Your task to perform on an android device: clear history in the chrome app Image 0: 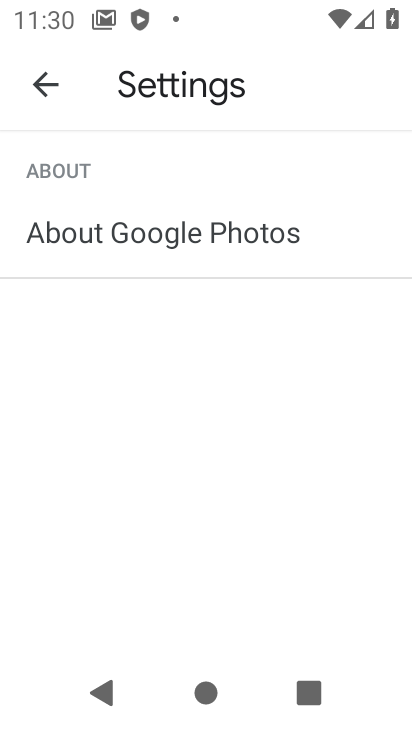
Step 0: press home button
Your task to perform on an android device: clear history in the chrome app Image 1: 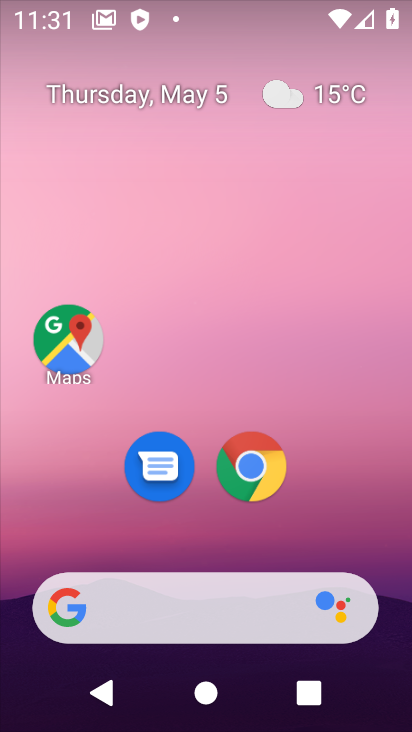
Step 1: drag from (206, 547) to (215, 134)
Your task to perform on an android device: clear history in the chrome app Image 2: 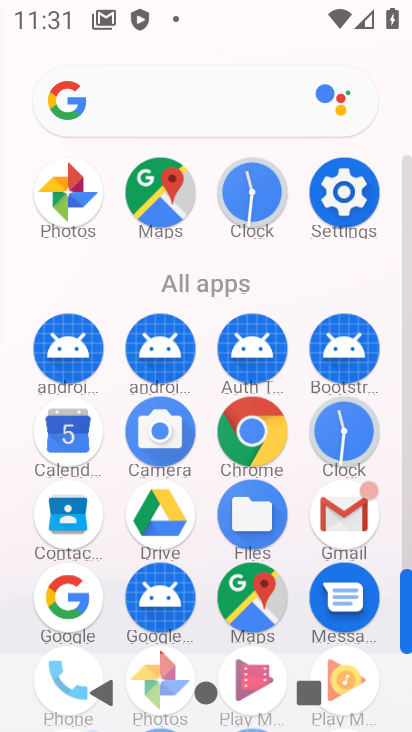
Step 2: click (258, 424)
Your task to perform on an android device: clear history in the chrome app Image 3: 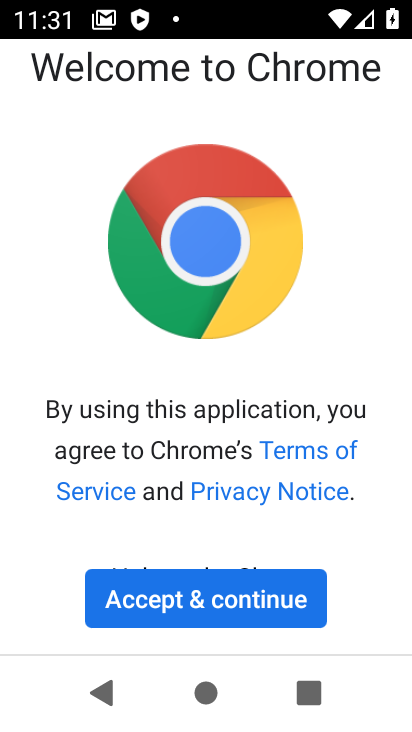
Step 3: drag from (204, 607) to (162, 607)
Your task to perform on an android device: clear history in the chrome app Image 4: 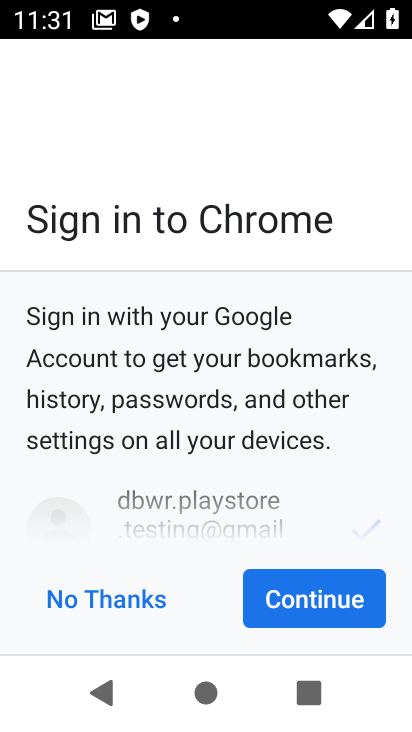
Step 4: click (347, 599)
Your task to perform on an android device: clear history in the chrome app Image 5: 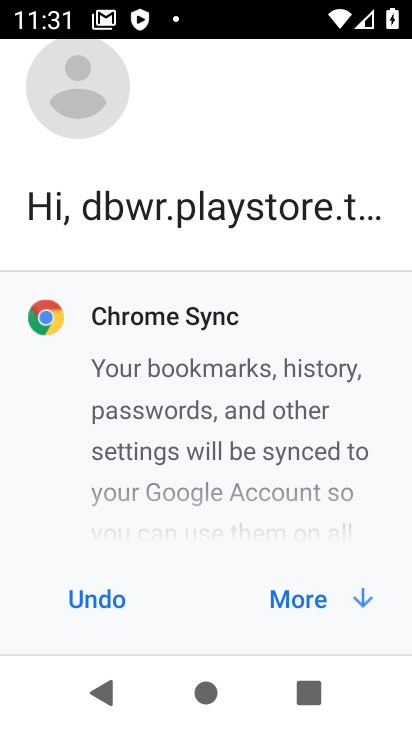
Step 5: click (298, 599)
Your task to perform on an android device: clear history in the chrome app Image 6: 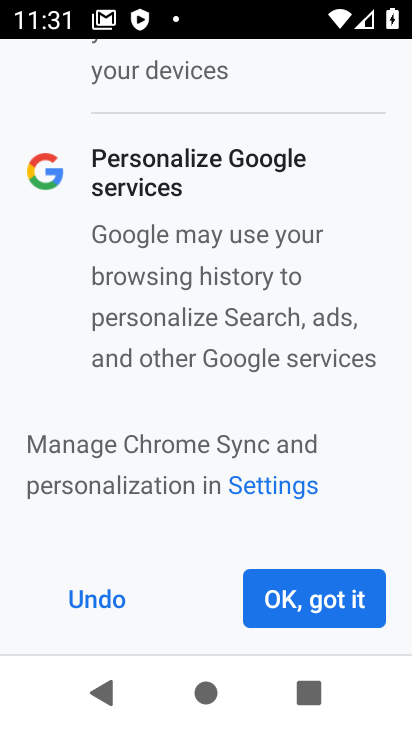
Step 6: click (305, 595)
Your task to perform on an android device: clear history in the chrome app Image 7: 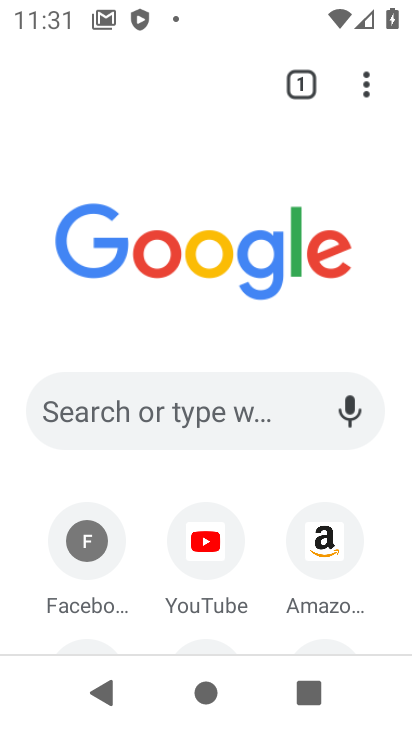
Step 7: click (361, 86)
Your task to perform on an android device: clear history in the chrome app Image 8: 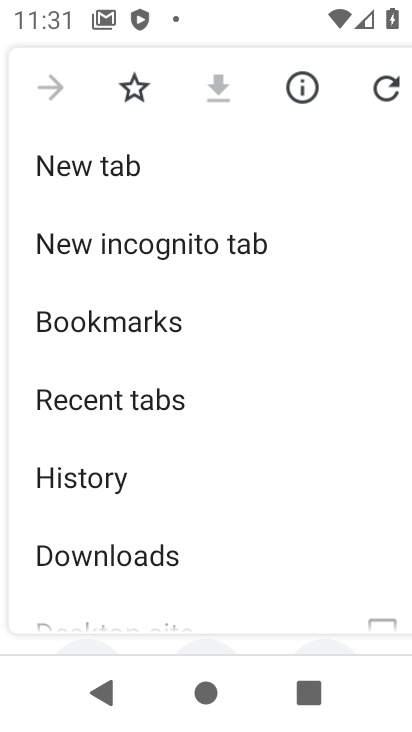
Step 8: click (95, 479)
Your task to perform on an android device: clear history in the chrome app Image 9: 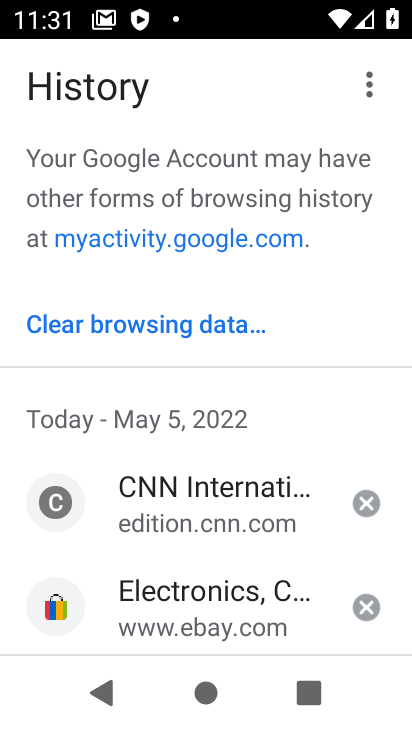
Step 9: click (145, 325)
Your task to perform on an android device: clear history in the chrome app Image 10: 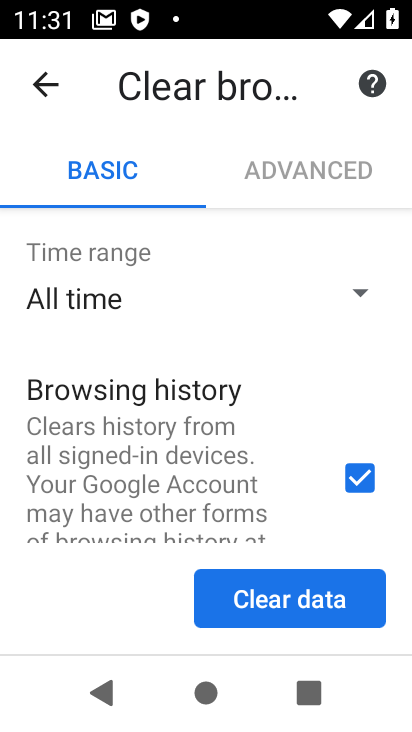
Step 10: click (327, 601)
Your task to perform on an android device: clear history in the chrome app Image 11: 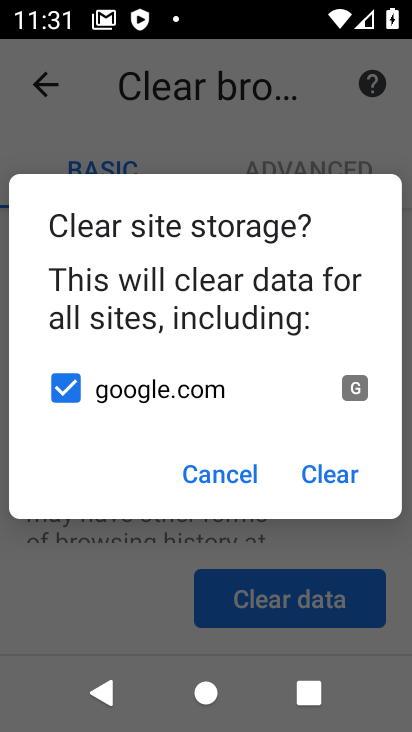
Step 11: click (357, 470)
Your task to perform on an android device: clear history in the chrome app Image 12: 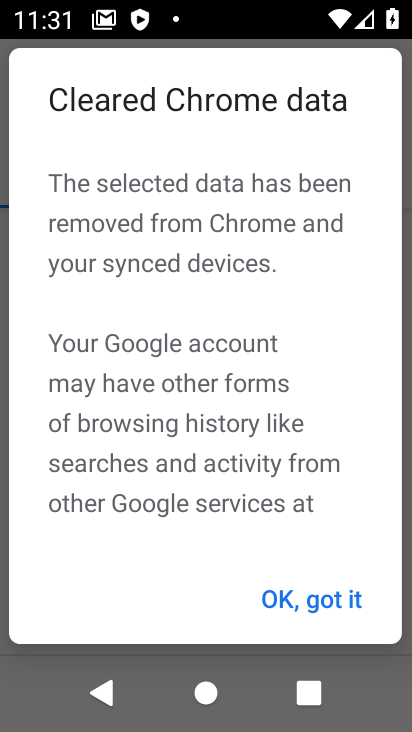
Step 12: task complete